Your task to perform on an android device: change notifications settings Image 0: 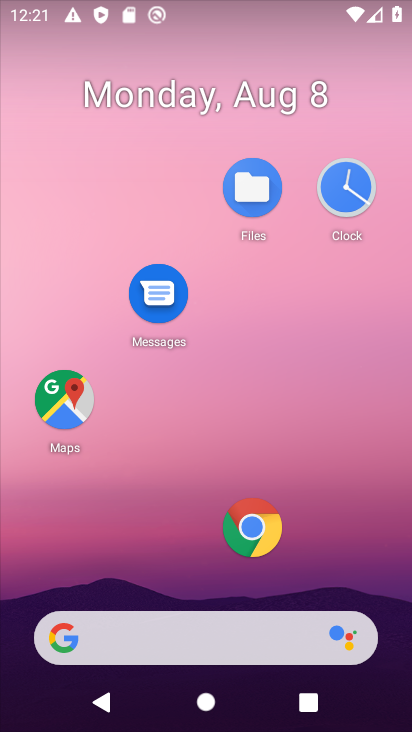
Step 0: drag from (340, 511) to (327, 148)
Your task to perform on an android device: change notifications settings Image 1: 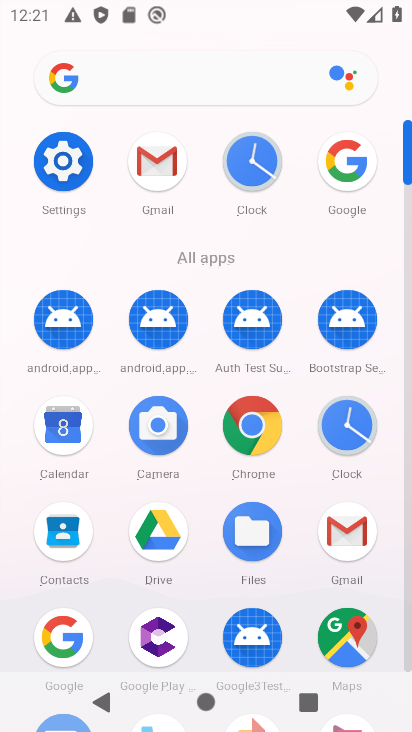
Step 1: task complete